Your task to perform on an android device: delete location history Image 0: 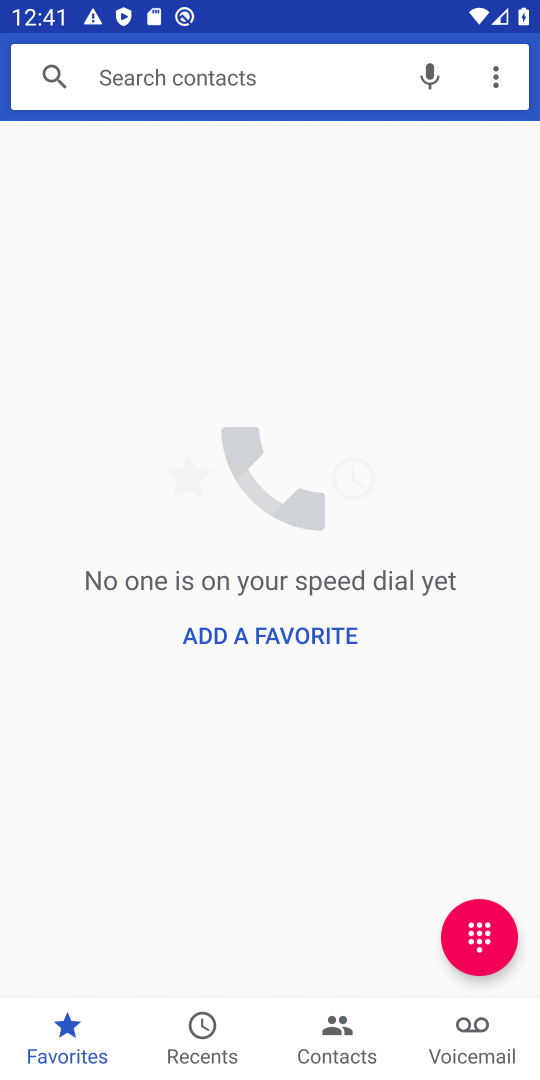
Step 0: press home button
Your task to perform on an android device: delete location history Image 1: 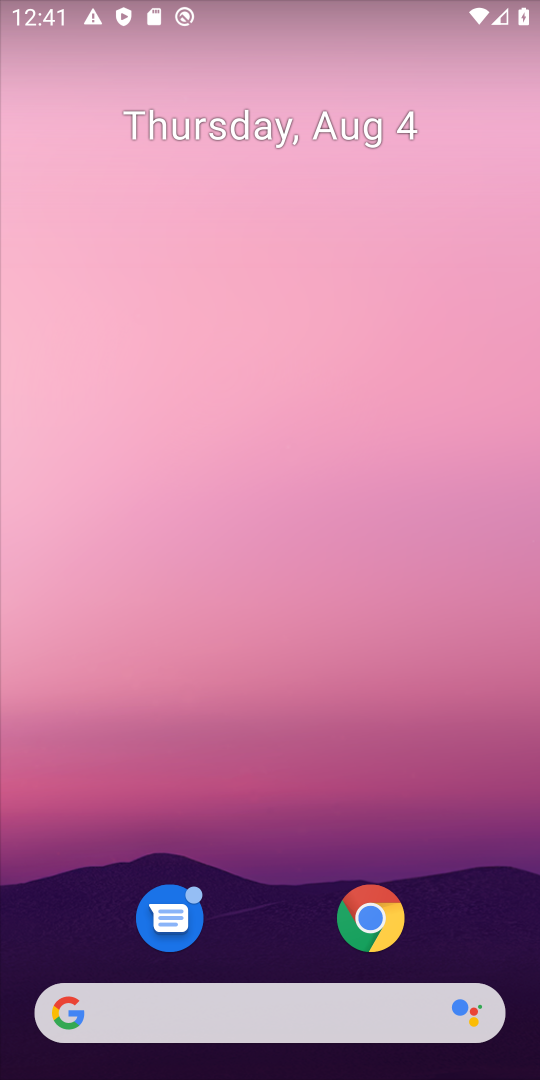
Step 1: drag from (303, 918) to (254, 438)
Your task to perform on an android device: delete location history Image 2: 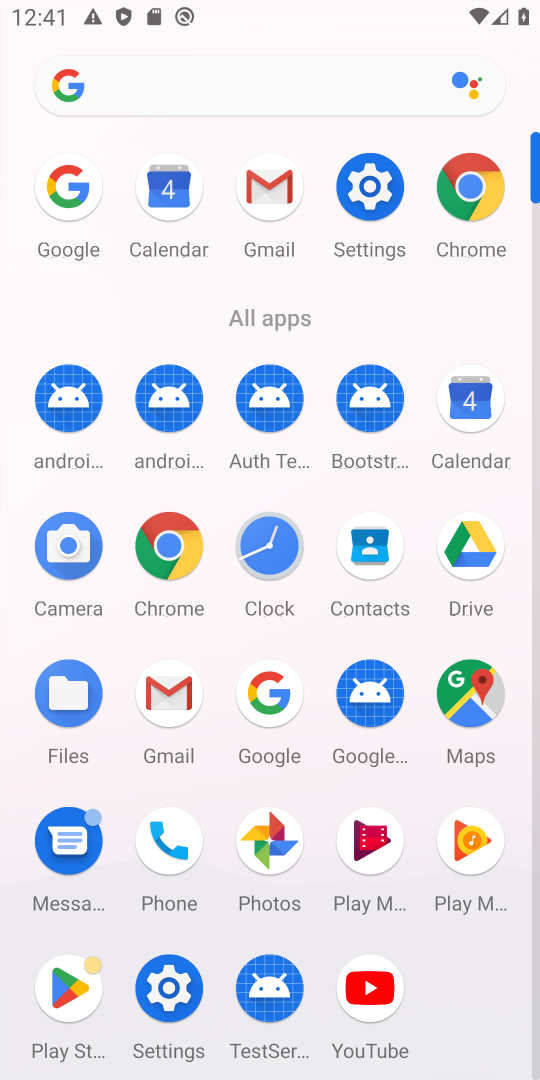
Step 2: click (463, 679)
Your task to perform on an android device: delete location history Image 3: 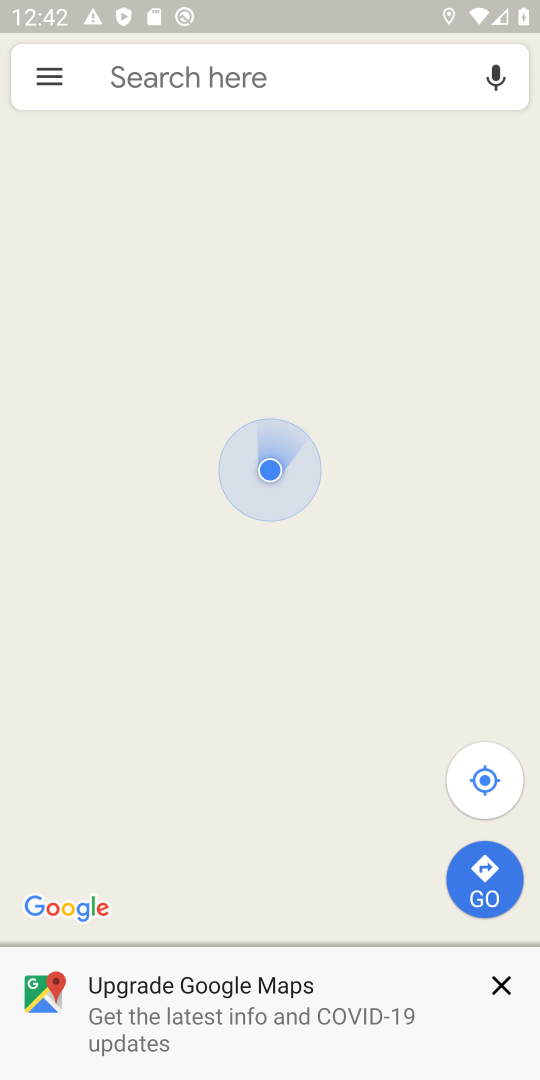
Step 3: click (56, 76)
Your task to perform on an android device: delete location history Image 4: 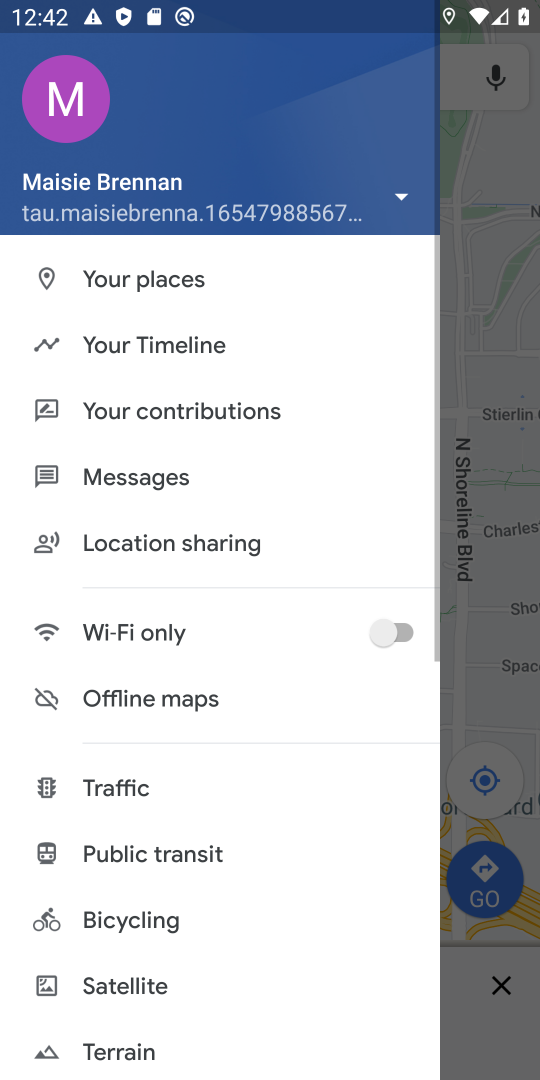
Step 4: click (124, 338)
Your task to perform on an android device: delete location history Image 5: 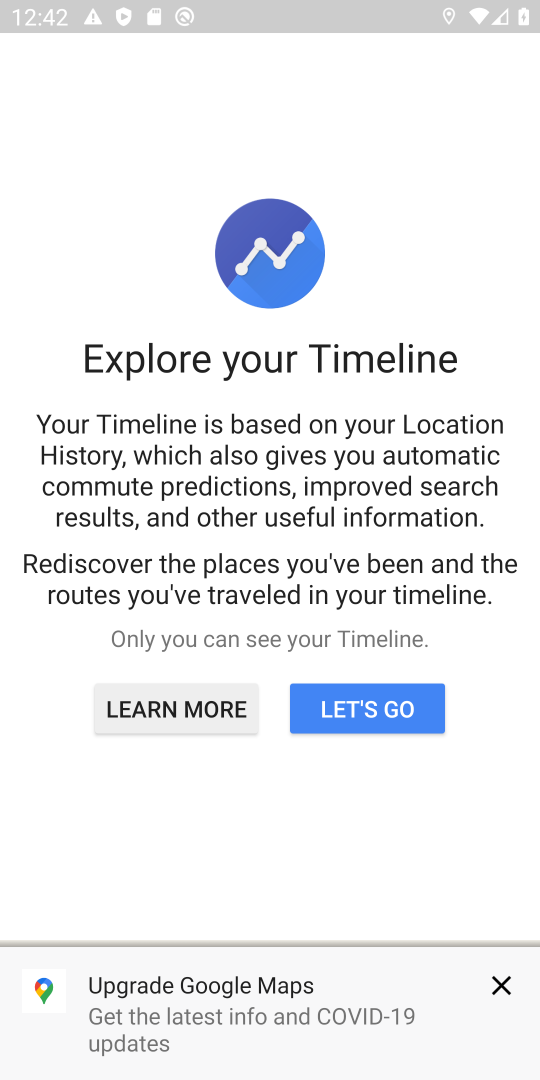
Step 5: click (369, 705)
Your task to perform on an android device: delete location history Image 6: 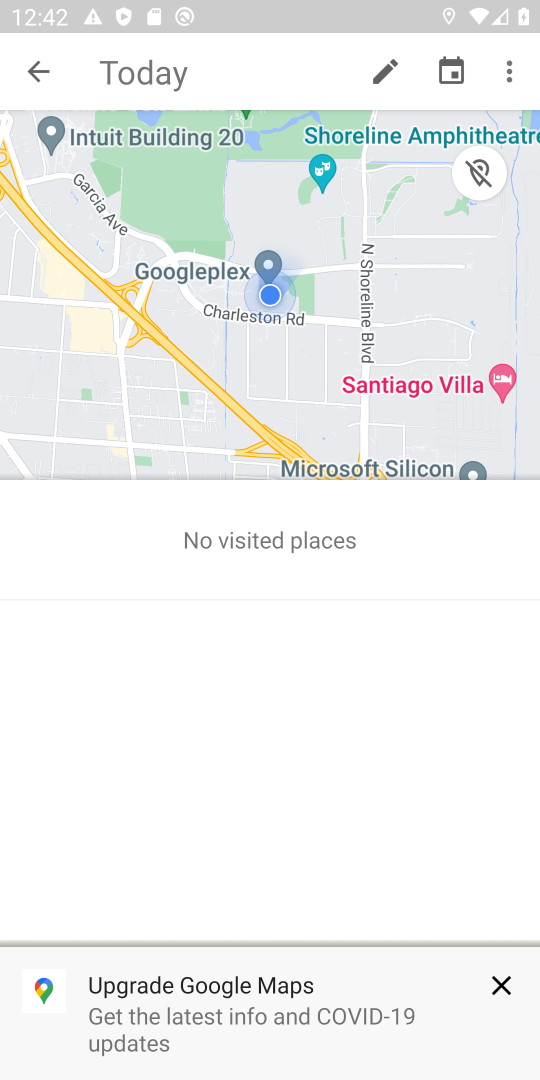
Step 6: click (492, 65)
Your task to perform on an android device: delete location history Image 7: 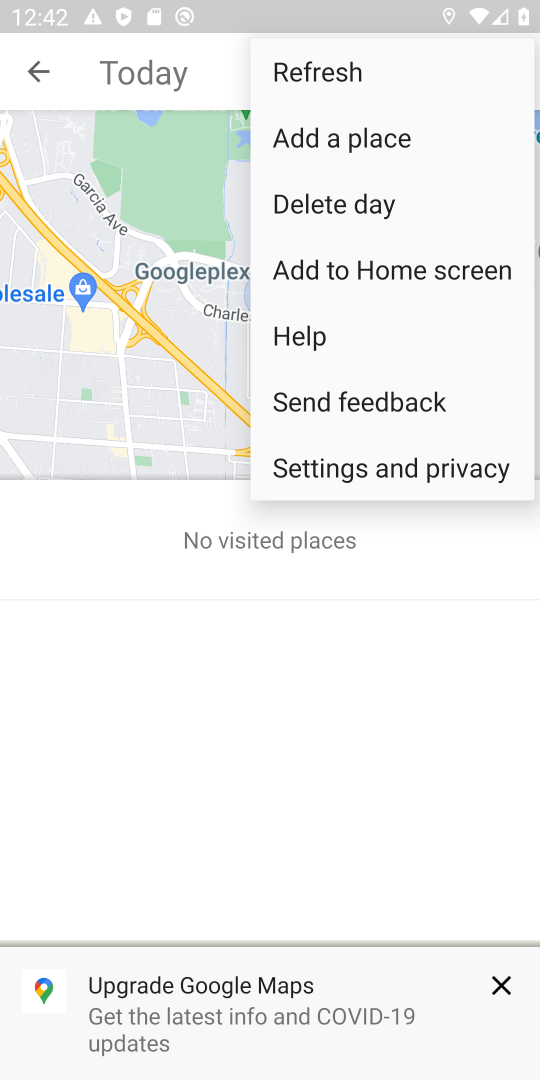
Step 7: click (369, 468)
Your task to perform on an android device: delete location history Image 8: 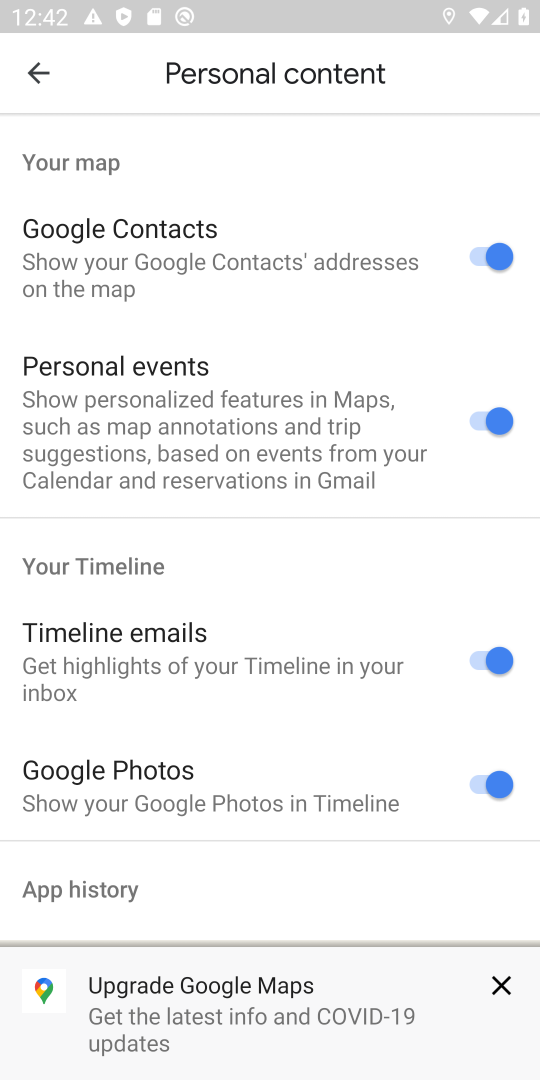
Step 8: drag from (300, 877) to (328, 323)
Your task to perform on an android device: delete location history Image 9: 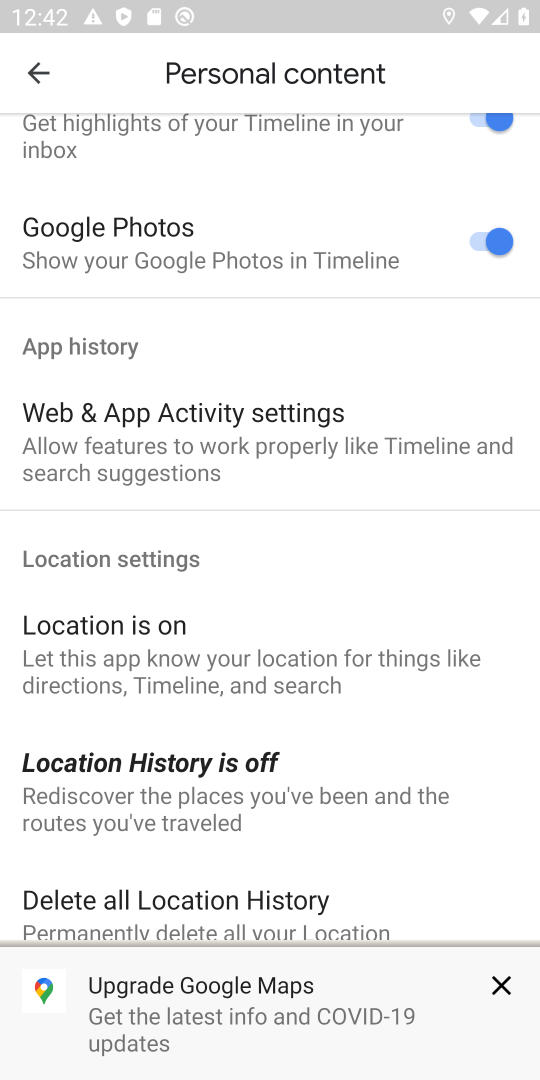
Step 9: click (250, 896)
Your task to perform on an android device: delete location history Image 10: 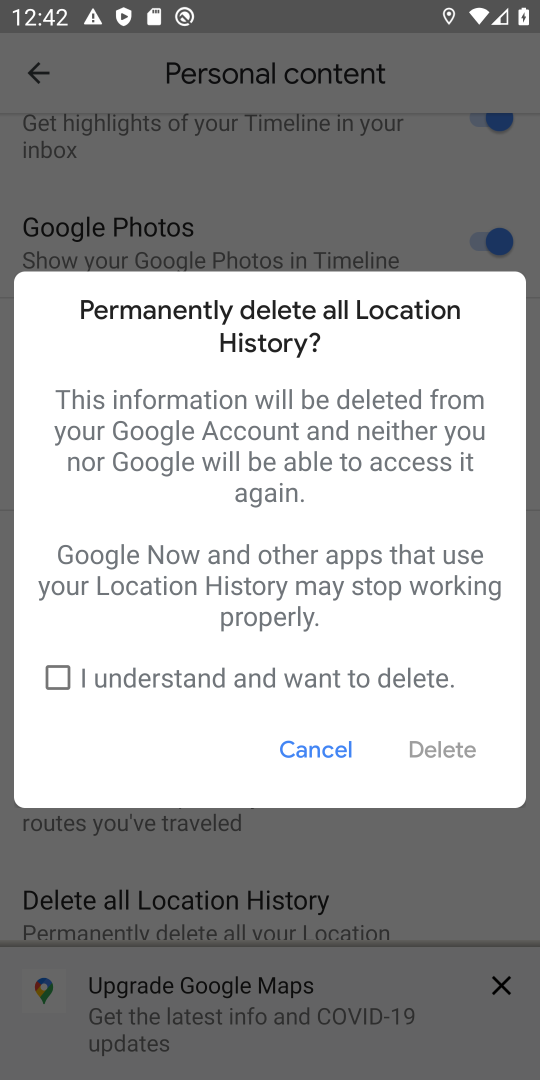
Step 10: click (268, 667)
Your task to perform on an android device: delete location history Image 11: 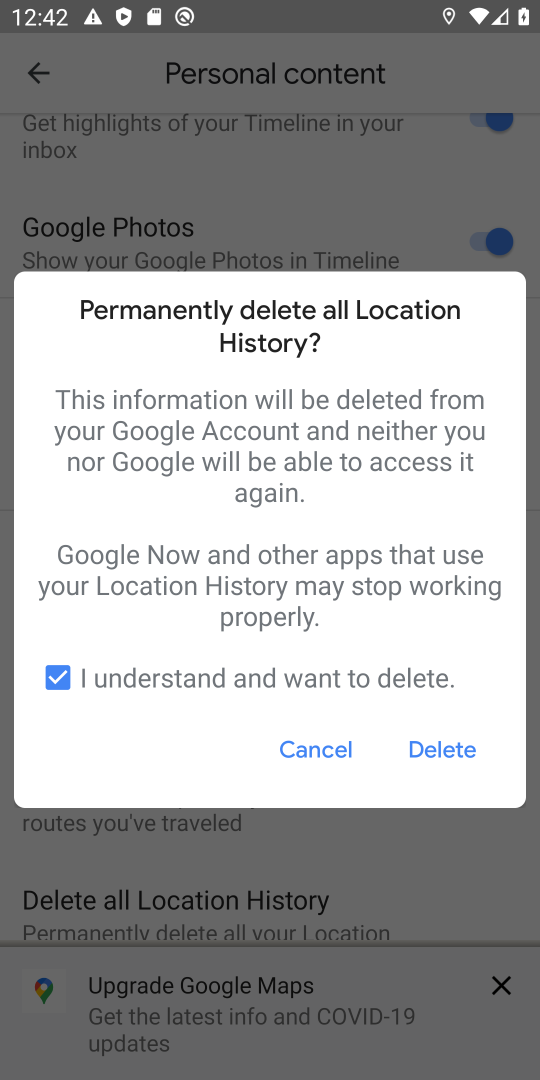
Step 11: click (464, 760)
Your task to perform on an android device: delete location history Image 12: 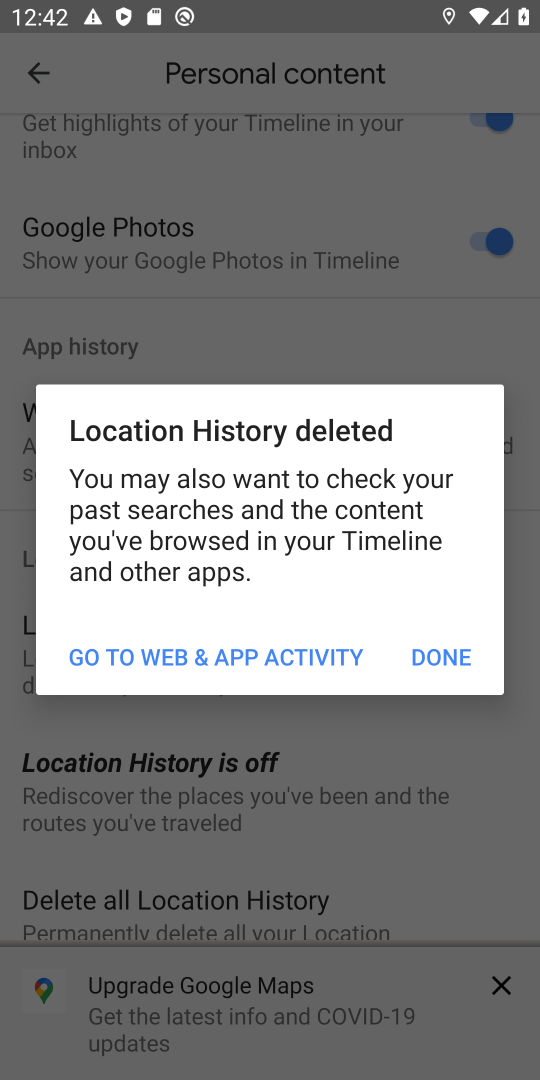
Step 12: click (428, 658)
Your task to perform on an android device: delete location history Image 13: 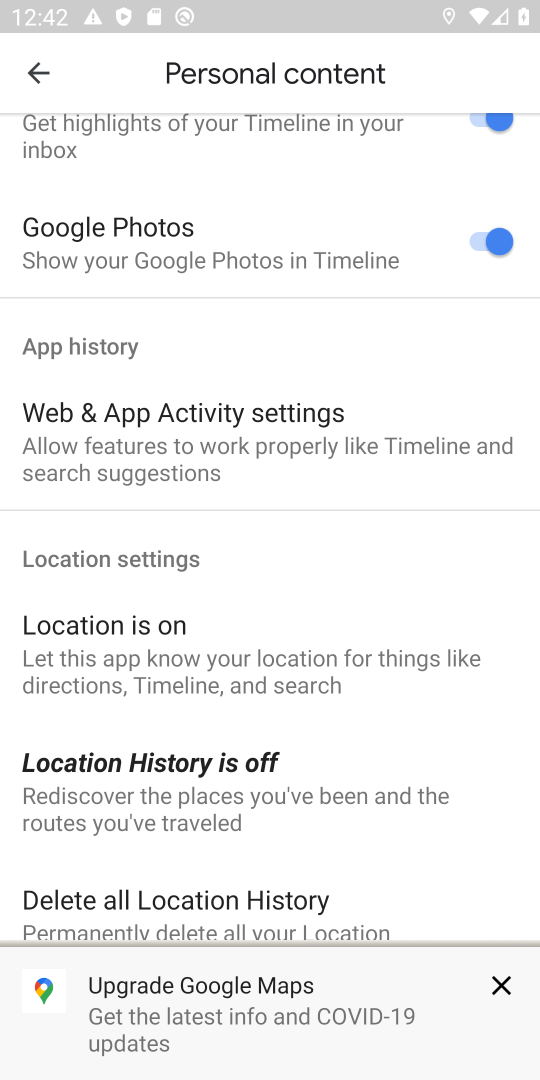
Step 13: task complete